Your task to perform on an android device: What is the news today? Image 0: 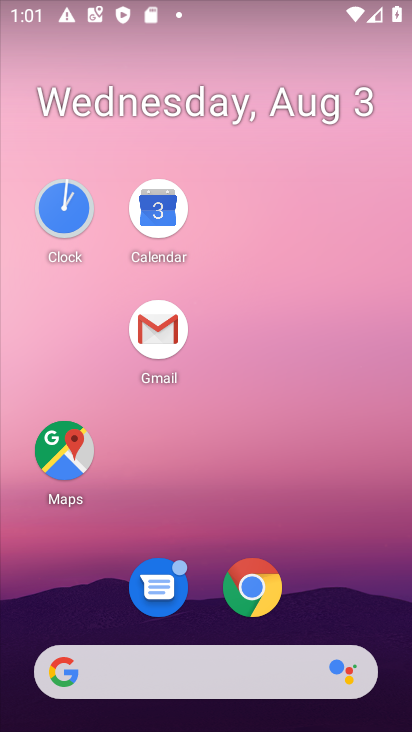
Step 0: drag from (330, 586) to (322, 213)
Your task to perform on an android device: What is the news today? Image 1: 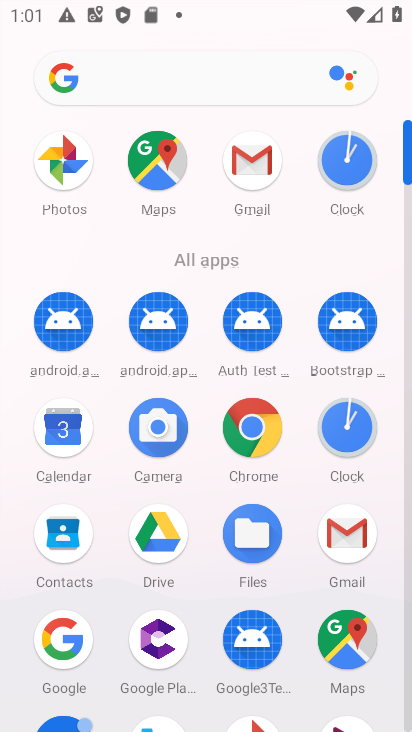
Step 1: drag from (63, 645) to (259, 333)
Your task to perform on an android device: What is the news today? Image 2: 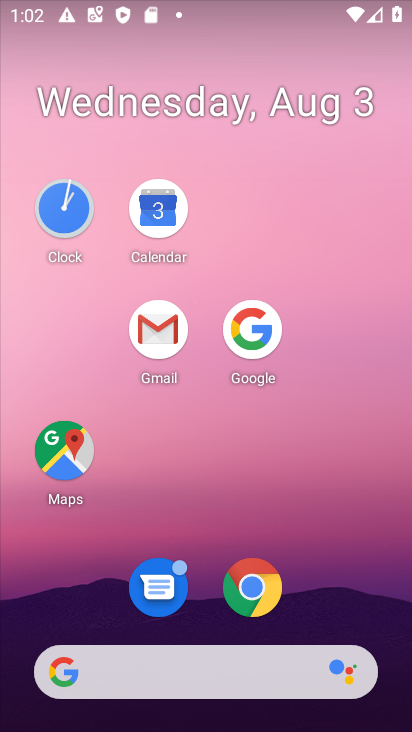
Step 2: click (249, 335)
Your task to perform on an android device: What is the news today? Image 3: 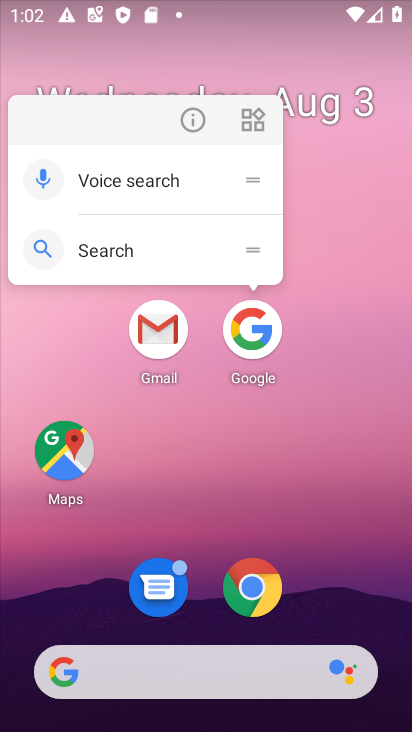
Step 3: click (249, 335)
Your task to perform on an android device: What is the news today? Image 4: 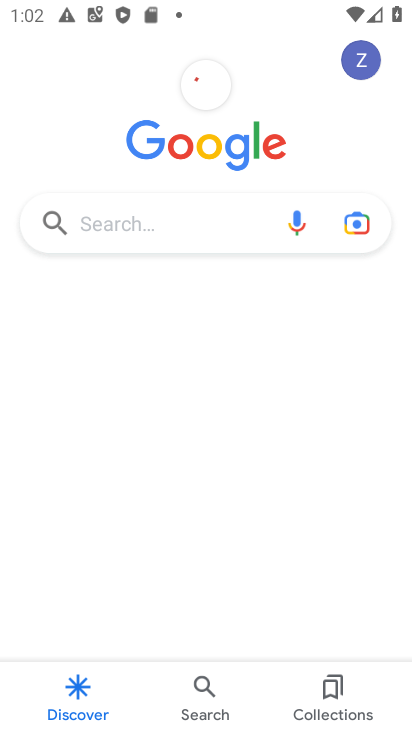
Step 4: click (197, 234)
Your task to perform on an android device: What is the news today? Image 5: 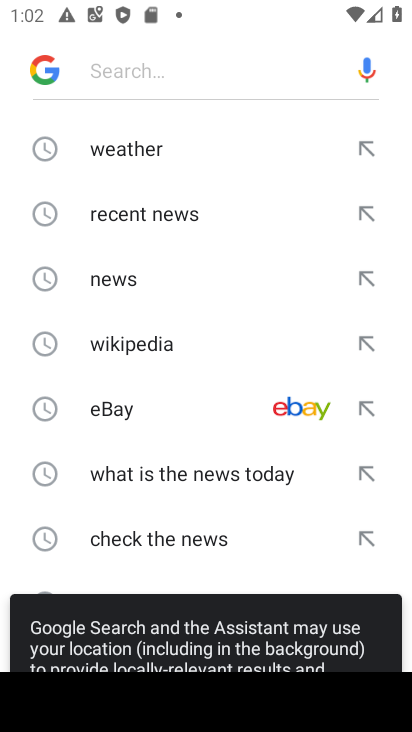
Step 5: click (153, 275)
Your task to perform on an android device: What is the news today? Image 6: 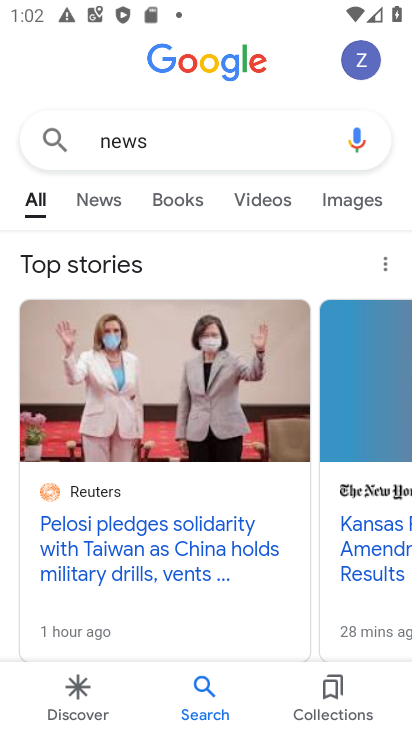
Step 6: task complete